Your task to perform on an android device: turn off airplane mode Image 0: 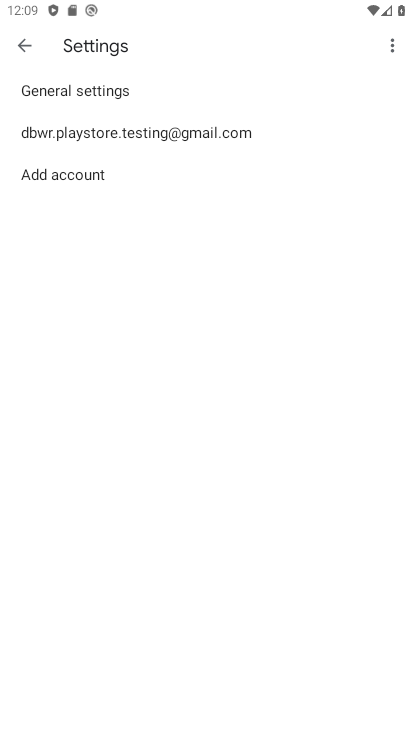
Step 0: press home button
Your task to perform on an android device: turn off airplane mode Image 1: 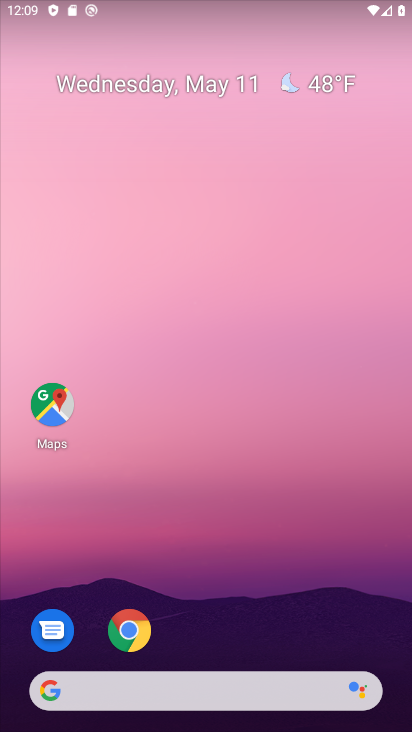
Step 1: drag from (229, 671) to (199, 53)
Your task to perform on an android device: turn off airplane mode Image 2: 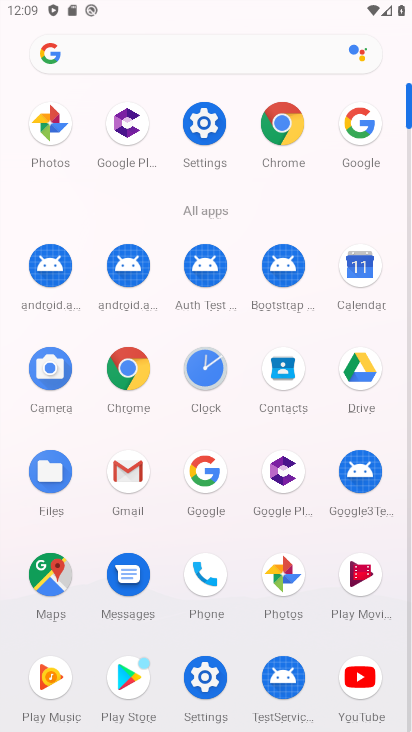
Step 2: click (214, 116)
Your task to perform on an android device: turn off airplane mode Image 3: 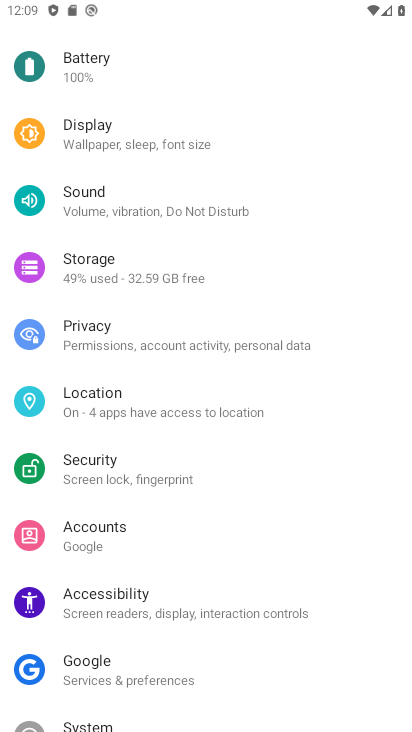
Step 3: drag from (214, 116) to (182, 401)
Your task to perform on an android device: turn off airplane mode Image 4: 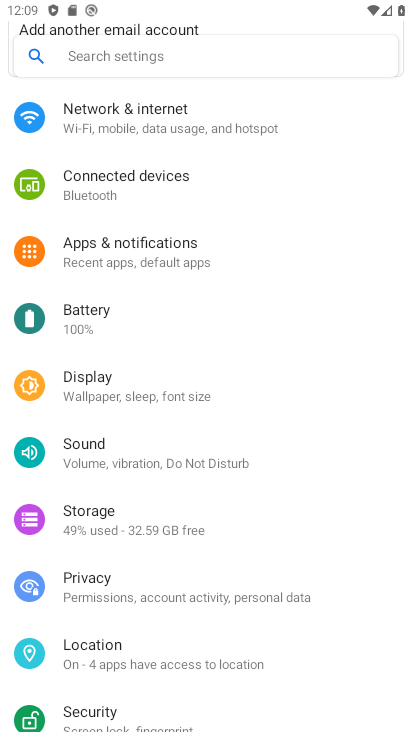
Step 4: drag from (185, 199) to (177, 380)
Your task to perform on an android device: turn off airplane mode Image 5: 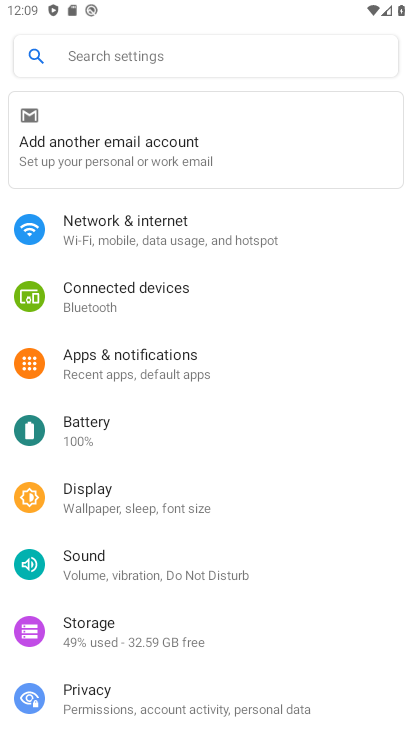
Step 5: click (128, 229)
Your task to perform on an android device: turn off airplane mode Image 6: 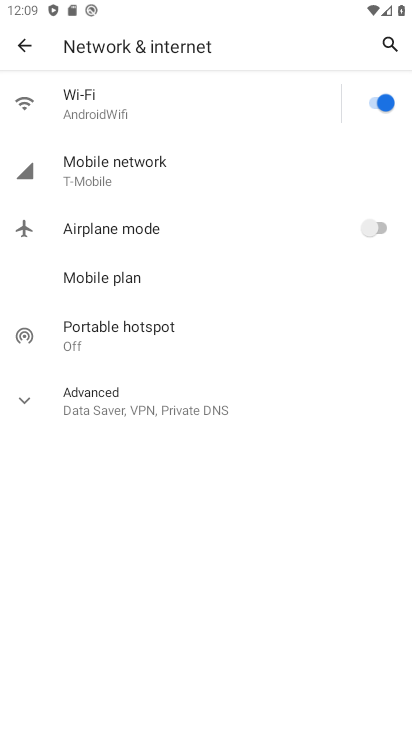
Step 6: task complete